Your task to perform on an android device: Open my contact list Image 0: 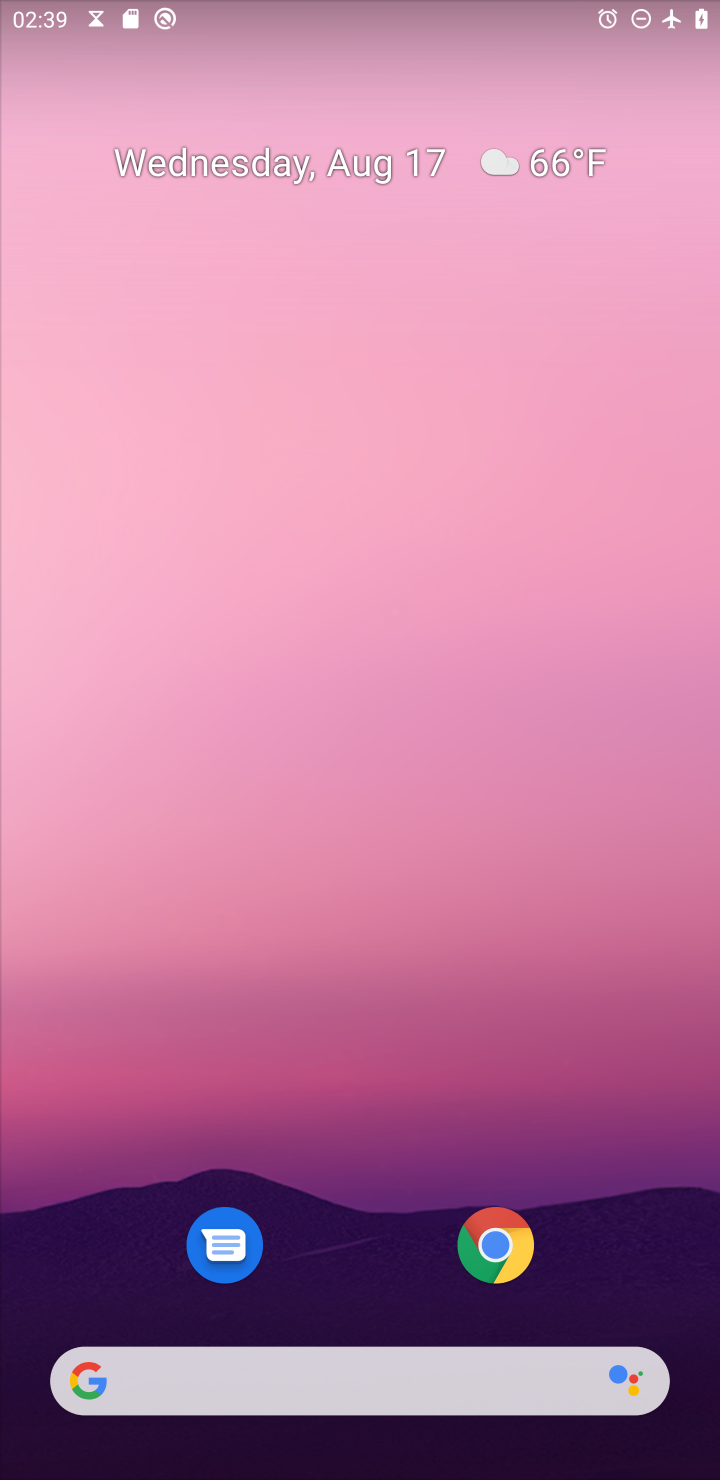
Step 0: drag from (373, 1324) to (367, 182)
Your task to perform on an android device: Open my contact list Image 1: 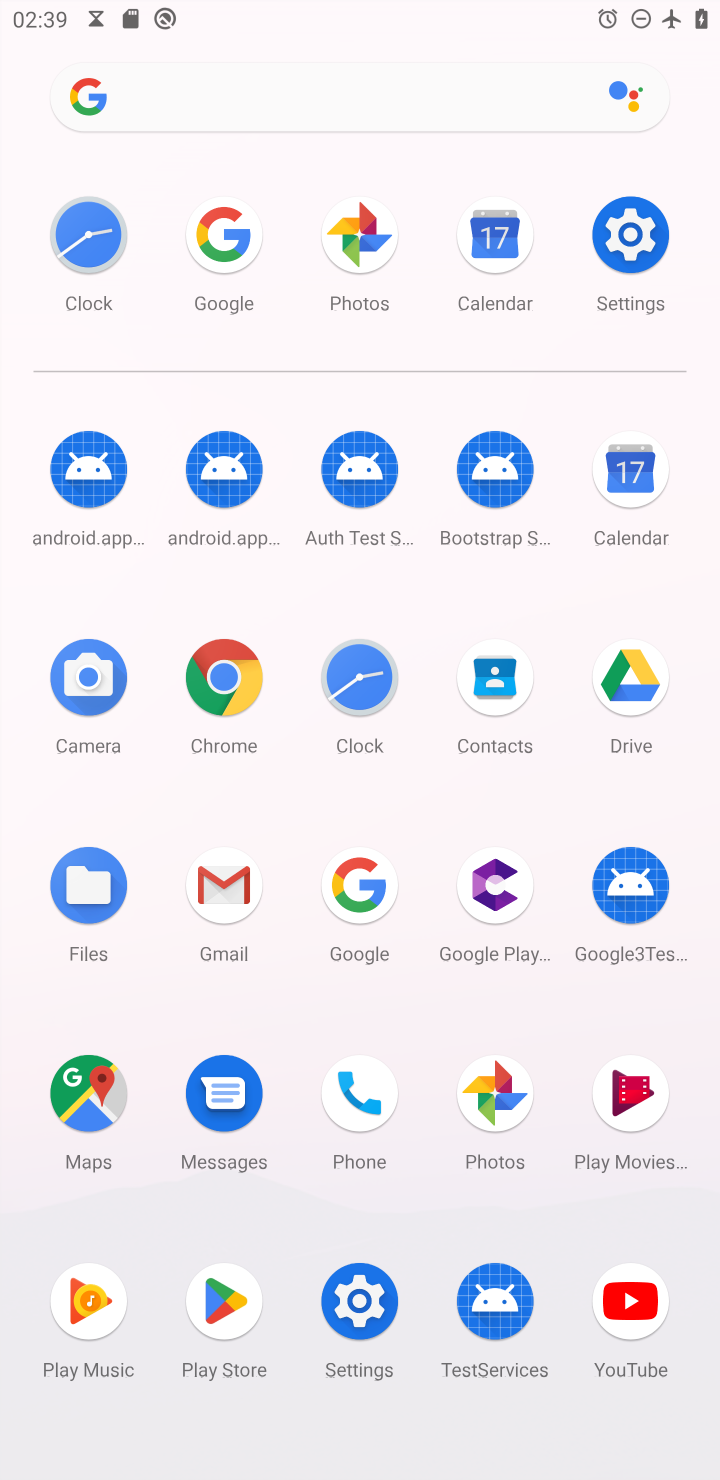
Step 1: click (466, 660)
Your task to perform on an android device: Open my contact list Image 2: 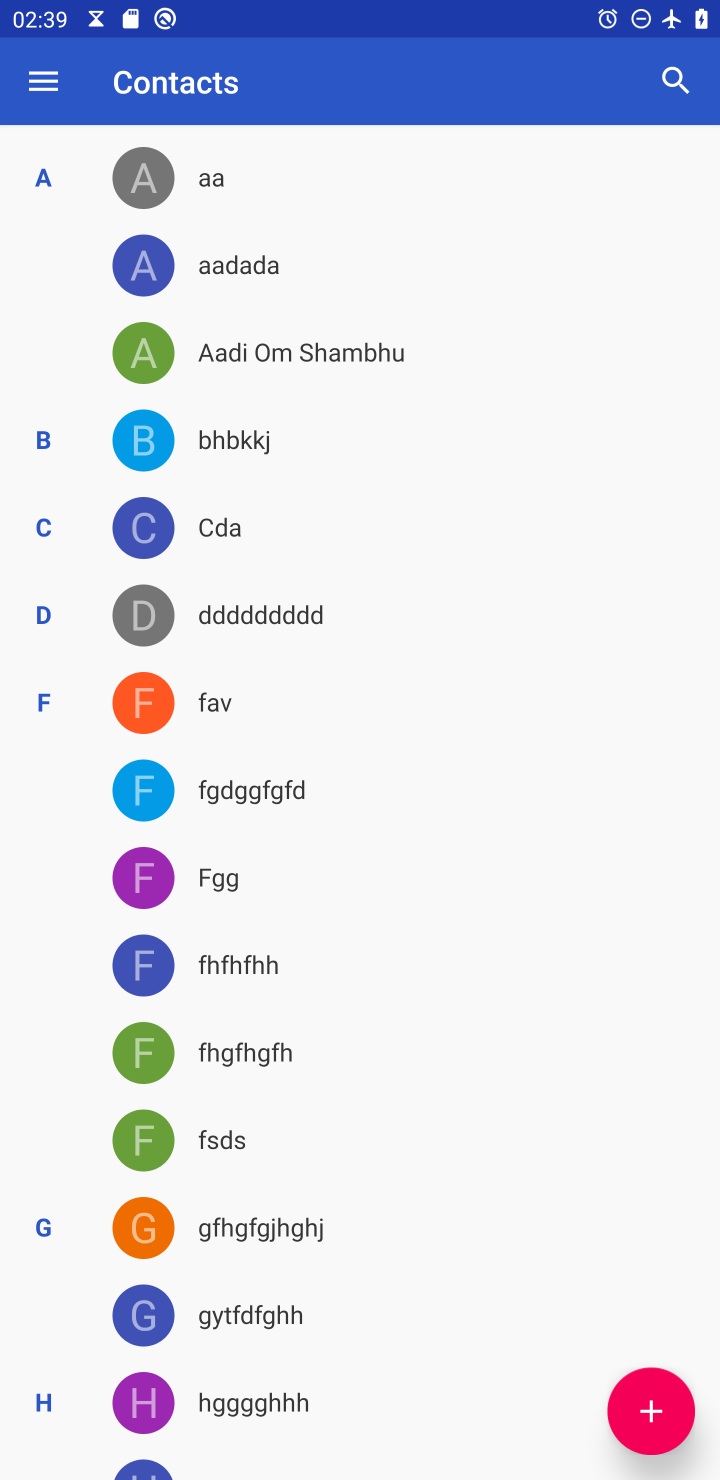
Step 2: task complete